Your task to perform on an android device: Open my contact list Image 0: 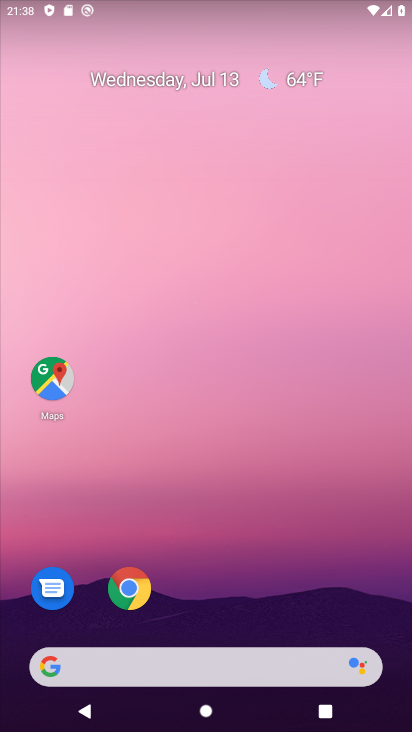
Step 0: drag from (303, 601) to (312, 0)
Your task to perform on an android device: Open my contact list Image 1: 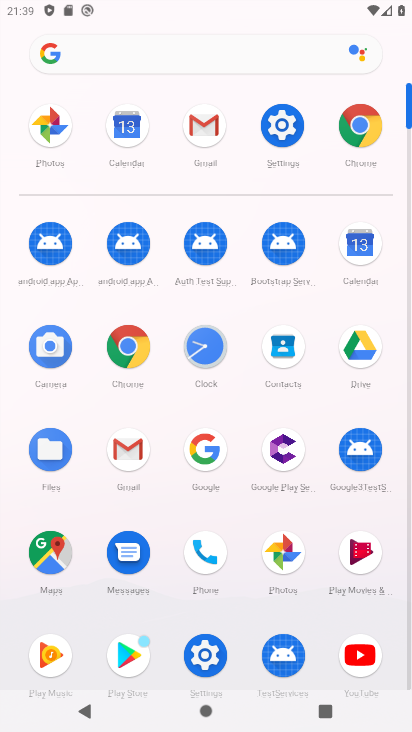
Step 1: click (290, 349)
Your task to perform on an android device: Open my contact list Image 2: 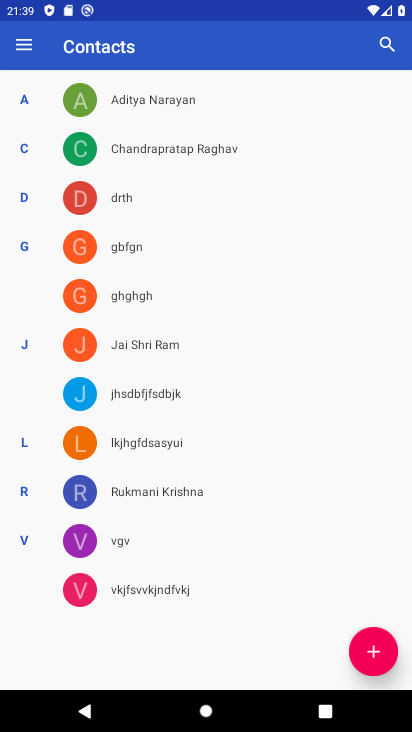
Step 2: task complete